Your task to perform on an android device: change text size in settings app Image 0: 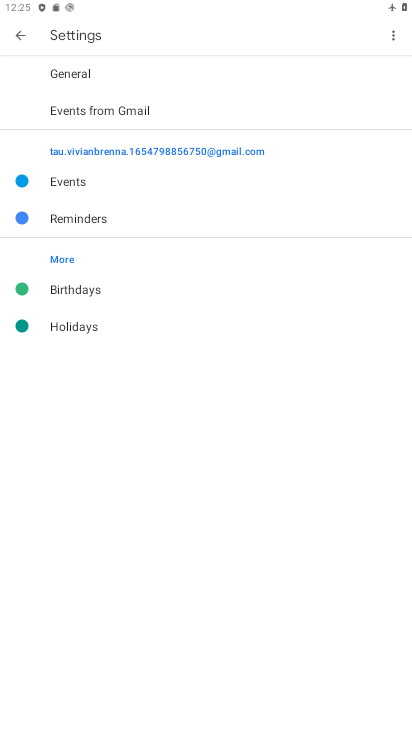
Step 0: press home button
Your task to perform on an android device: change text size in settings app Image 1: 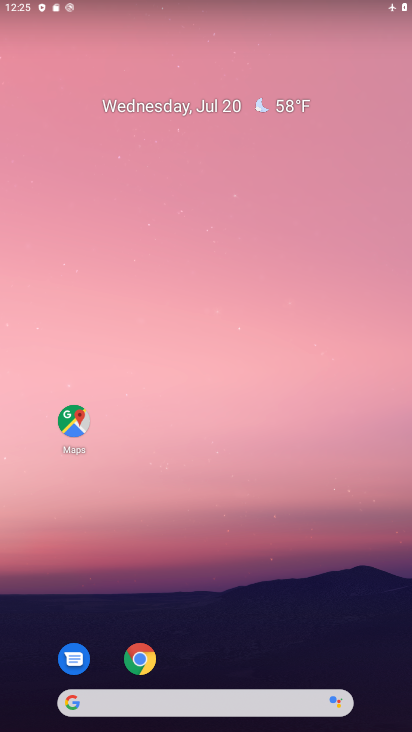
Step 1: drag from (204, 661) to (263, 166)
Your task to perform on an android device: change text size in settings app Image 2: 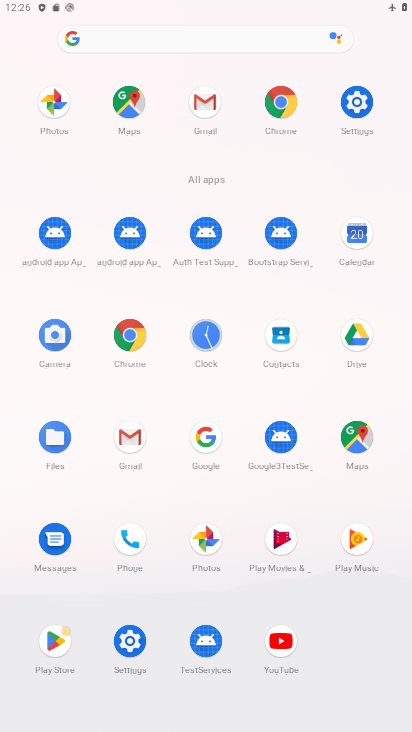
Step 2: click (357, 102)
Your task to perform on an android device: change text size in settings app Image 3: 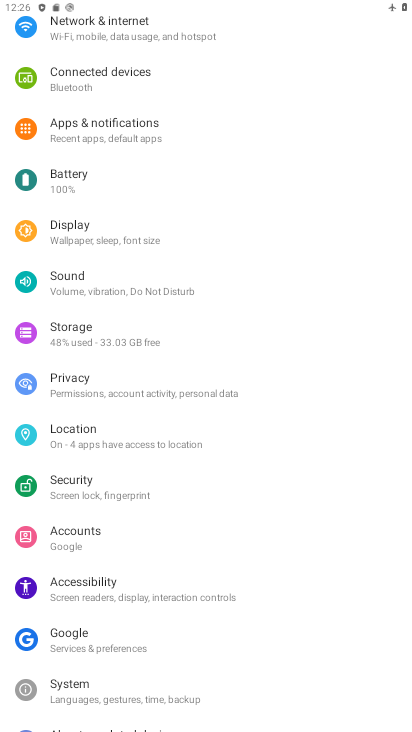
Step 3: click (102, 232)
Your task to perform on an android device: change text size in settings app Image 4: 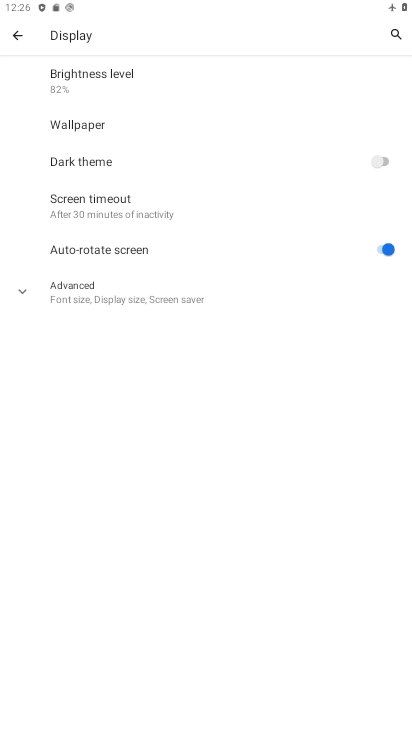
Step 4: click (26, 290)
Your task to perform on an android device: change text size in settings app Image 5: 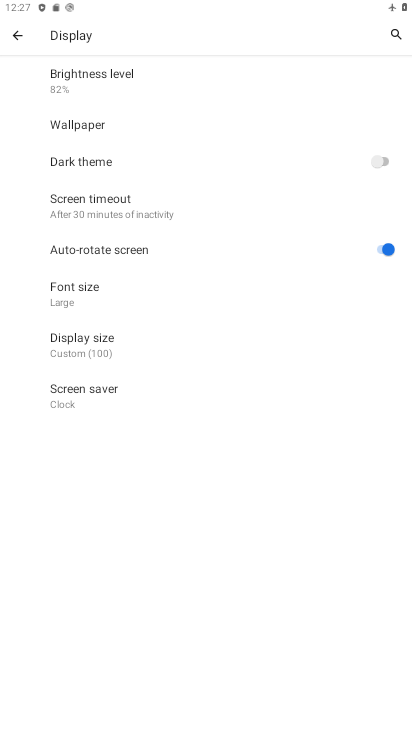
Step 5: click (106, 292)
Your task to perform on an android device: change text size in settings app Image 6: 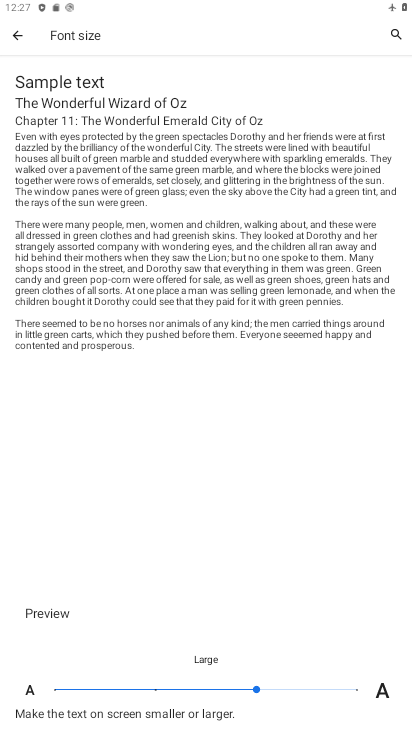
Step 6: click (359, 688)
Your task to perform on an android device: change text size in settings app Image 7: 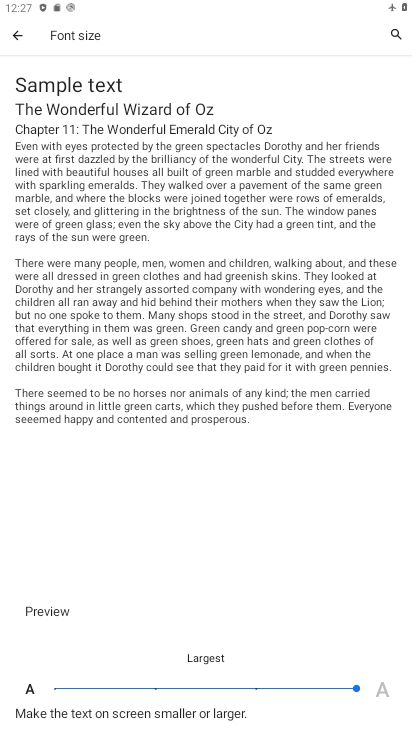
Step 7: task complete